Your task to perform on an android device: What's the weather? Image 0: 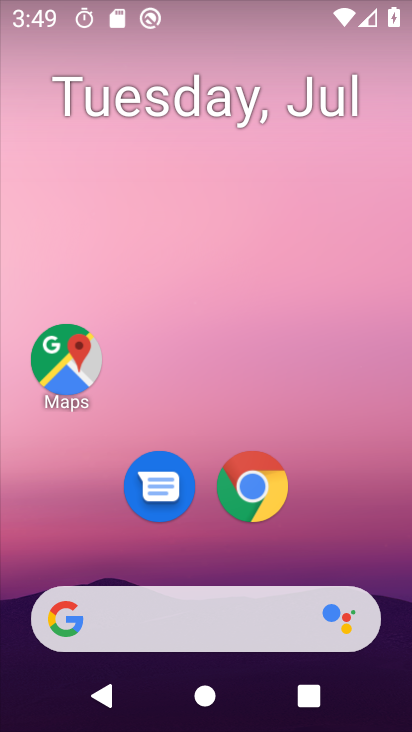
Step 0: press home button
Your task to perform on an android device: What's the weather? Image 1: 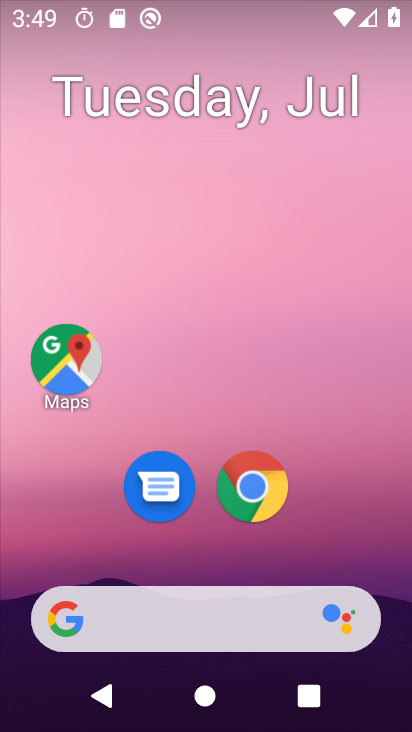
Step 1: click (244, 604)
Your task to perform on an android device: What's the weather? Image 2: 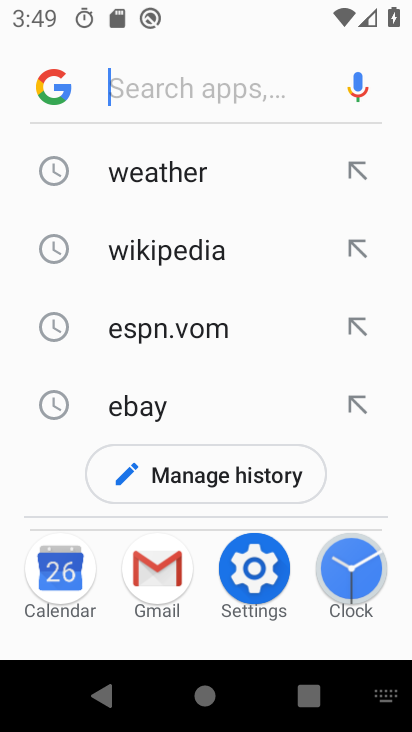
Step 2: click (202, 175)
Your task to perform on an android device: What's the weather? Image 3: 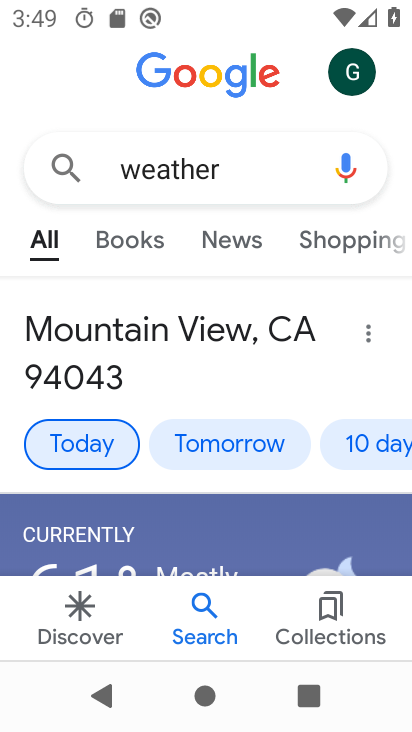
Step 3: task complete